Your task to perform on an android device: see sites visited before in the chrome app Image 0: 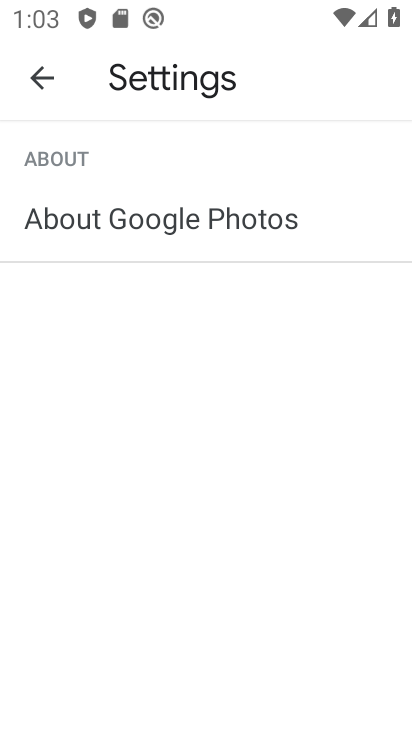
Step 0: click (43, 80)
Your task to perform on an android device: see sites visited before in the chrome app Image 1: 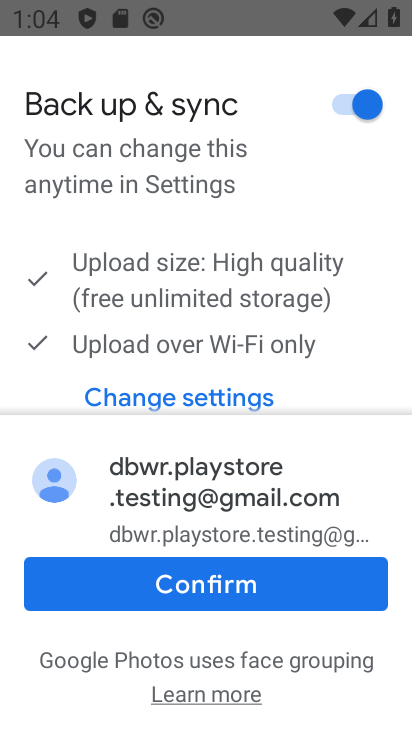
Step 1: click (175, 580)
Your task to perform on an android device: see sites visited before in the chrome app Image 2: 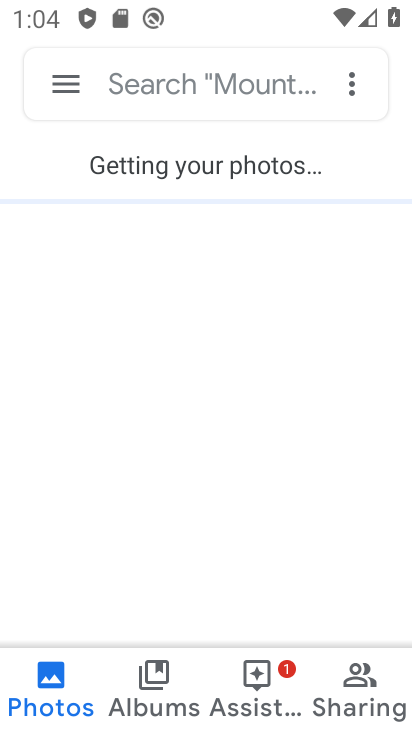
Step 2: press home button
Your task to perform on an android device: see sites visited before in the chrome app Image 3: 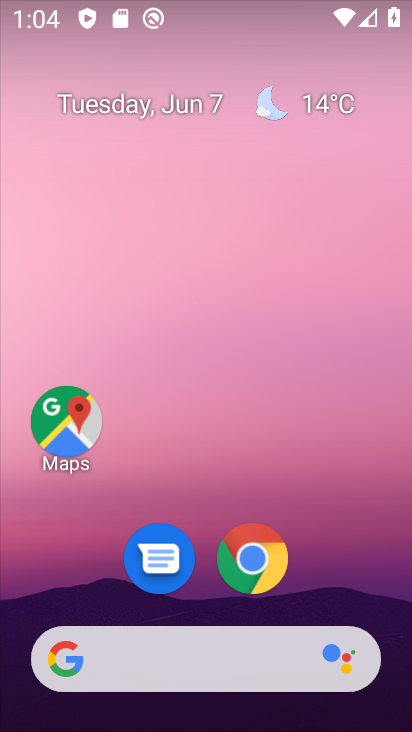
Step 3: click (245, 558)
Your task to perform on an android device: see sites visited before in the chrome app Image 4: 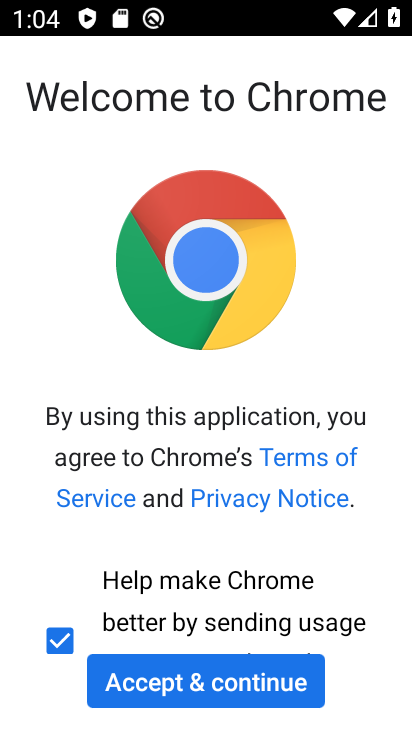
Step 4: click (215, 689)
Your task to perform on an android device: see sites visited before in the chrome app Image 5: 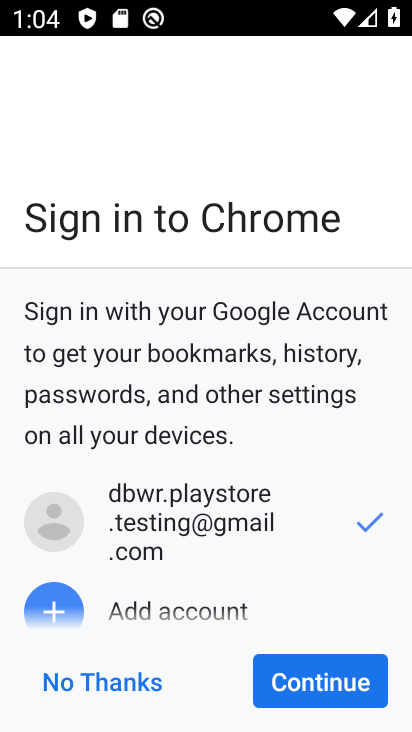
Step 5: click (142, 696)
Your task to perform on an android device: see sites visited before in the chrome app Image 6: 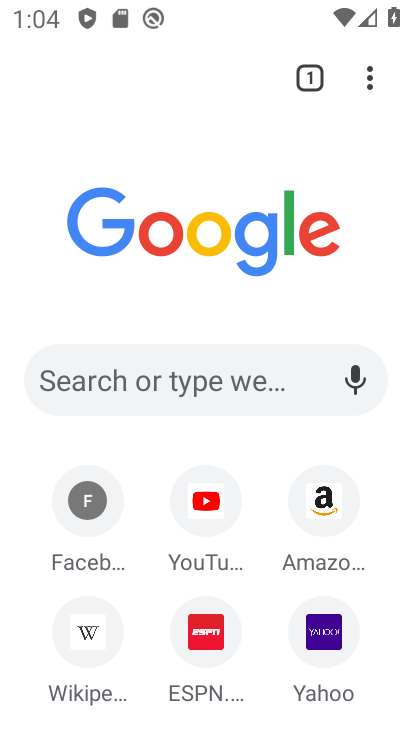
Step 6: click (376, 77)
Your task to perform on an android device: see sites visited before in the chrome app Image 7: 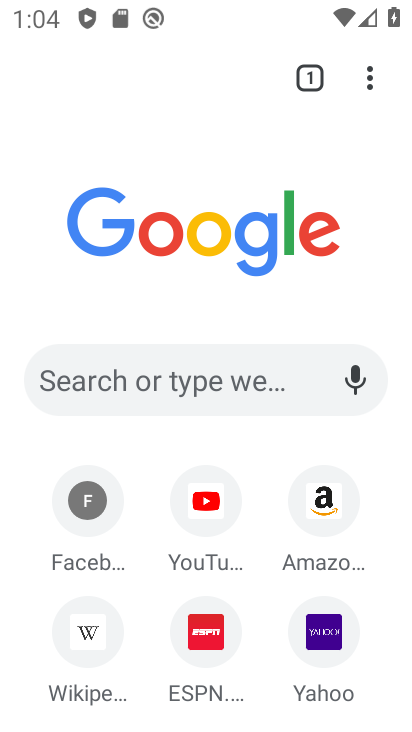
Step 7: click (375, 87)
Your task to perform on an android device: see sites visited before in the chrome app Image 8: 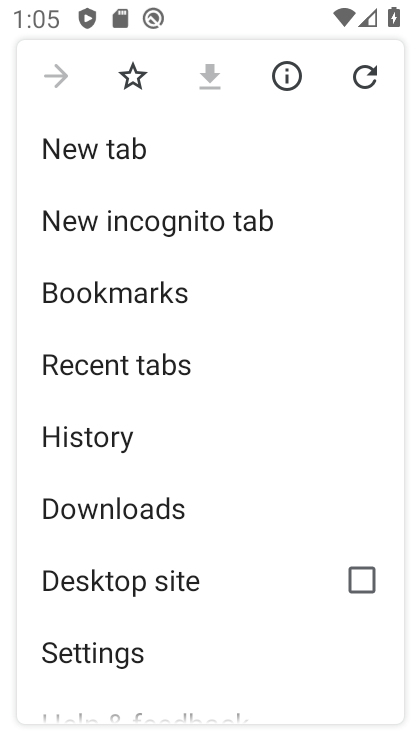
Step 8: click (123, 446)
Your task to perform on an android device: see sites visited before in the chrome app Image 9: 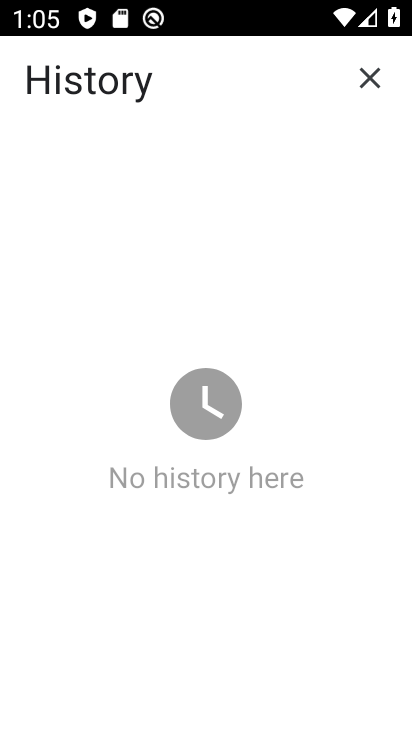
Step 9: task complete